Your task to perform on an android device: check android version Image 0: 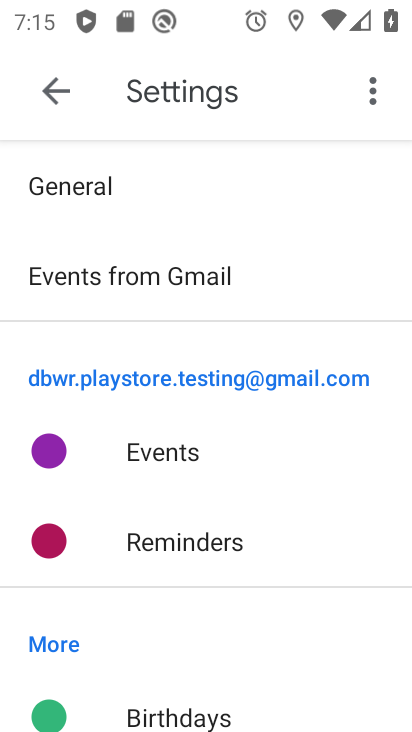
Step 0: press home button
Your task to perform on an android device: check android version Image 1: 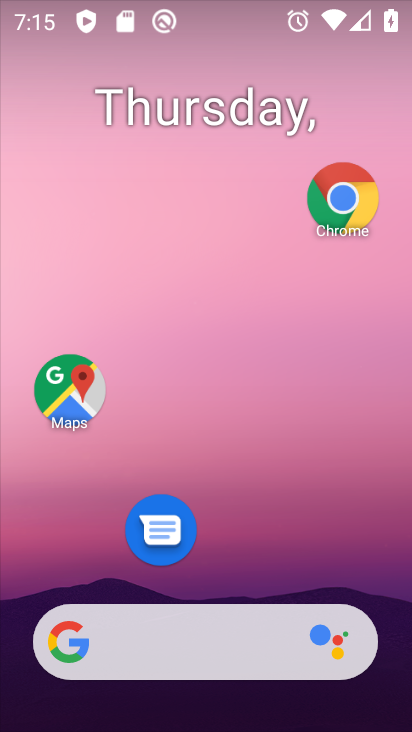
Step 1: drag from (297, 613) to (249, 224)
Your task to perform on an android device: check android version Image 2: 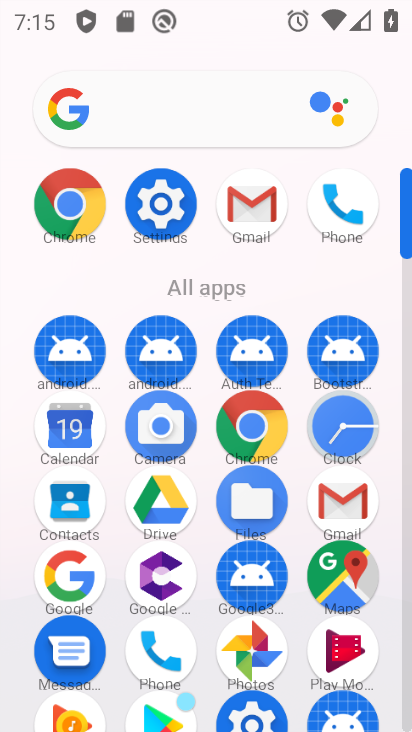
Step 2: click (181, 205)
Your task to perform on an android device: check android version Image 3: 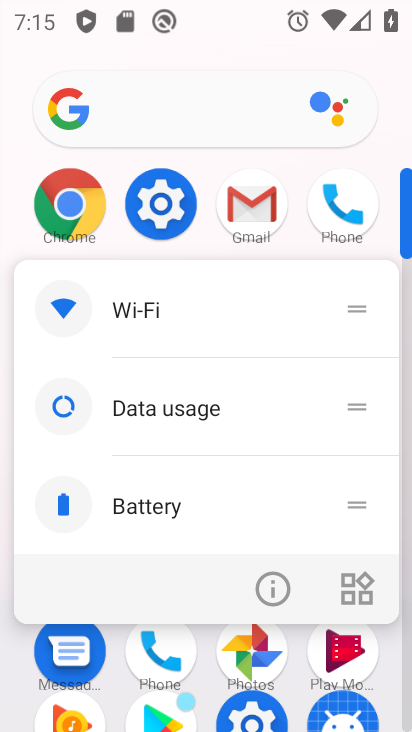
Step 3: click (180, 206)
Your task to perform on an android device: check android version Image 4: 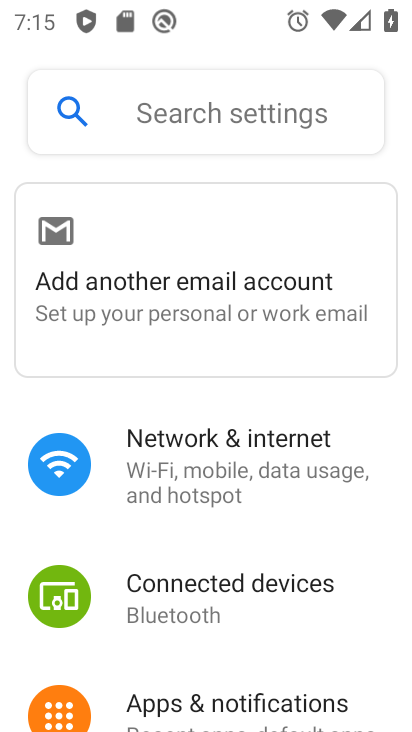
Step 4: click (158, 120)
Your task to perform on an android device: check android version Image 5: 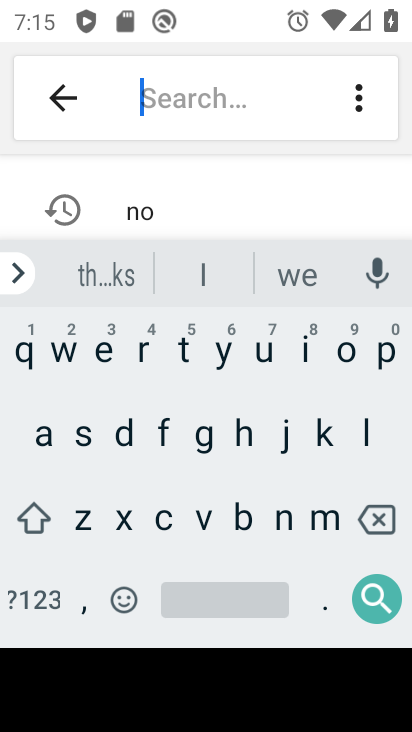
Step 5: click (49, 446)
Your task to perform on an android device: check android version Image 6: 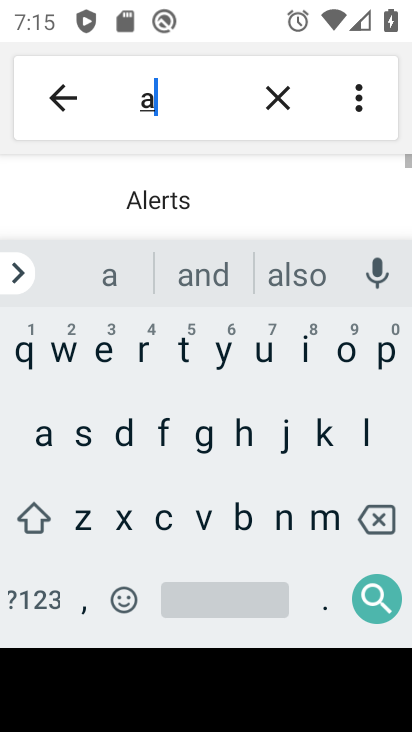
Step 6: click (283, 527)
Your task to perform on an android device: check android version Image 7: 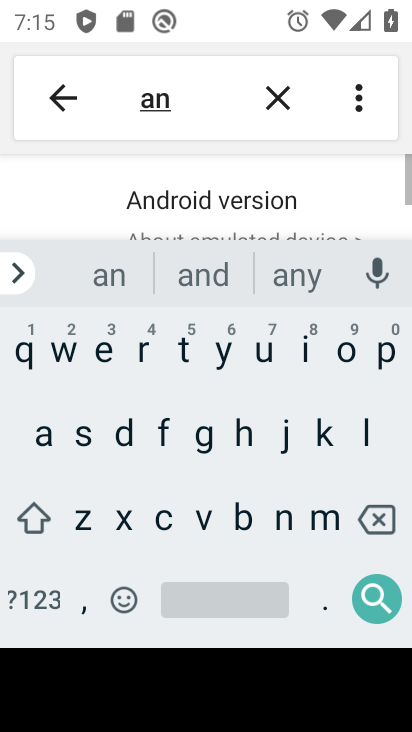
Step 7: click (226, 201)
Your task to perform on an android device: check android version Image 8: 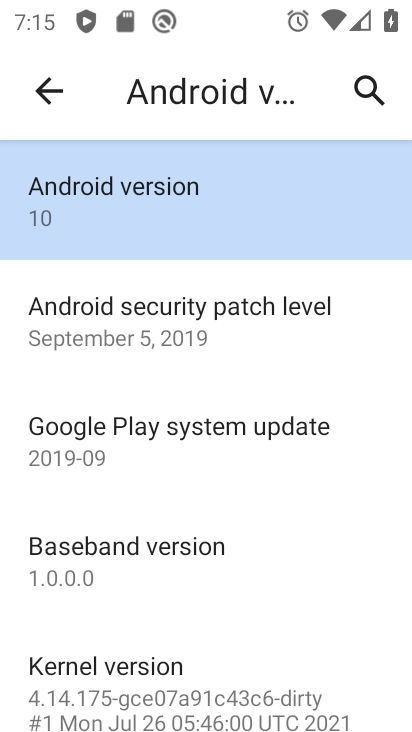
Step 8: task complete